Your task to perform on an android device: install app "Pandora - Music & Podcasts" Image 0: 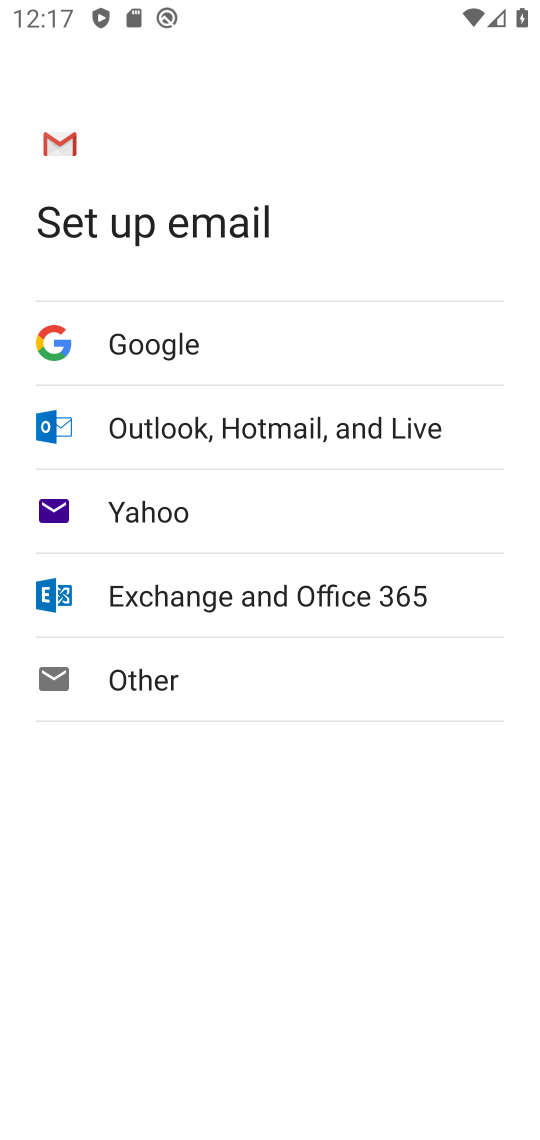
Step 0: press back button
Your task to perform on an android device: install app "Pandora - Music & Podcasts" Image 1: 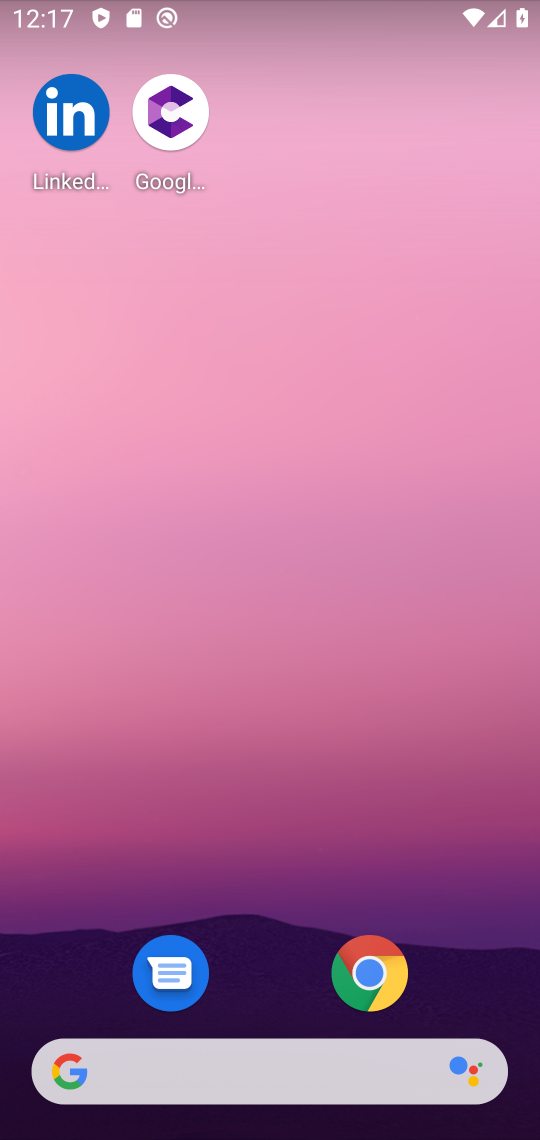
Step 1: drag from (274, 972) to (394, 155)
Your task to perform on an android device: install app "Pandora - Music & Podcasts" Image 2: 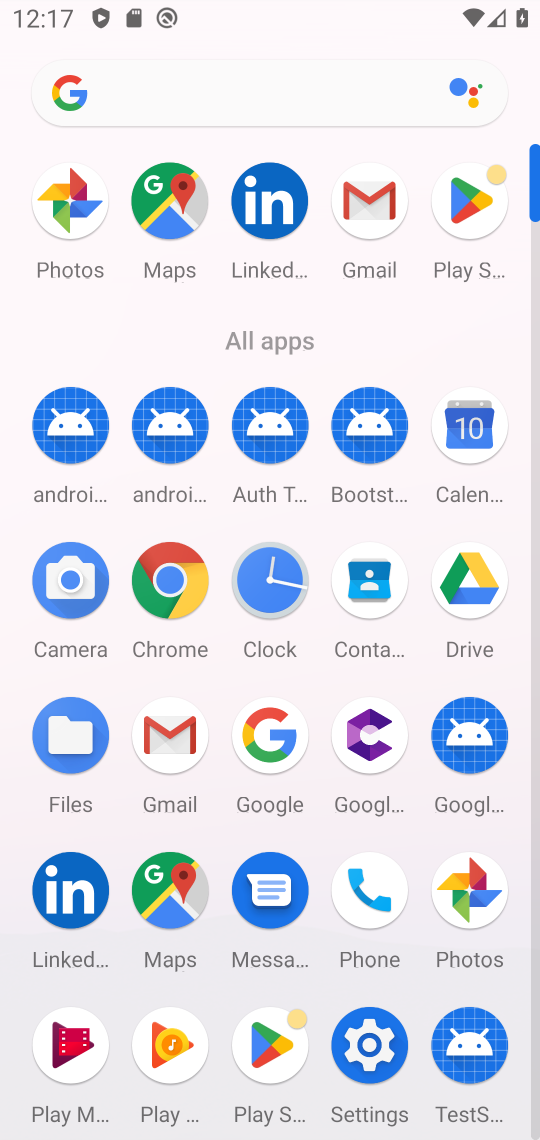
Step 2: click (472, 204)
Your task to perform on an android device: install app "Pandora - Music & Podcasts" Image 3: 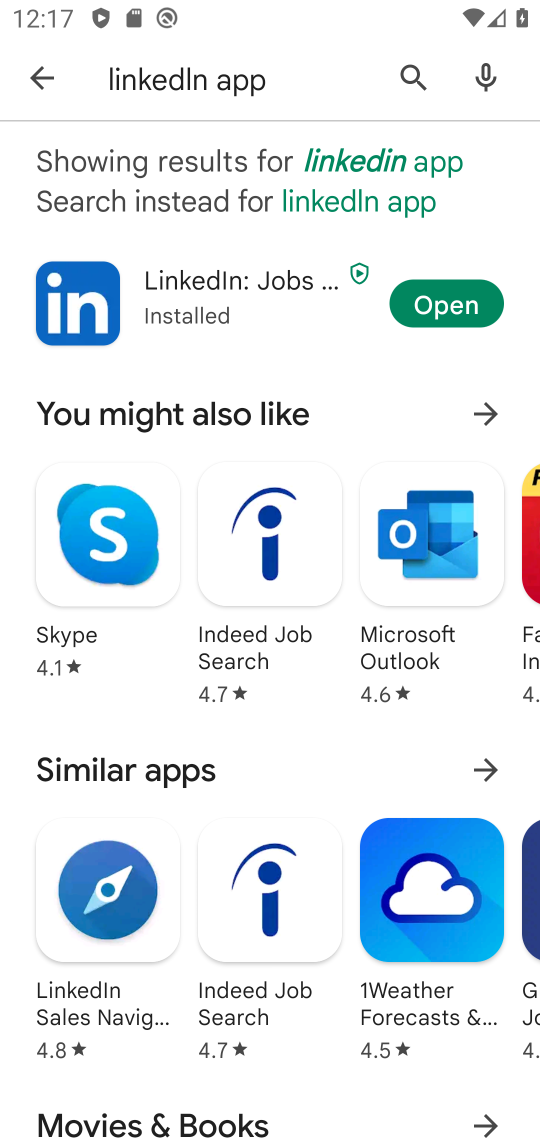
Step 3: click (406, 74)
Your task to perform on an android device: install app "Pandora - Music & Podcasts" Image 4: 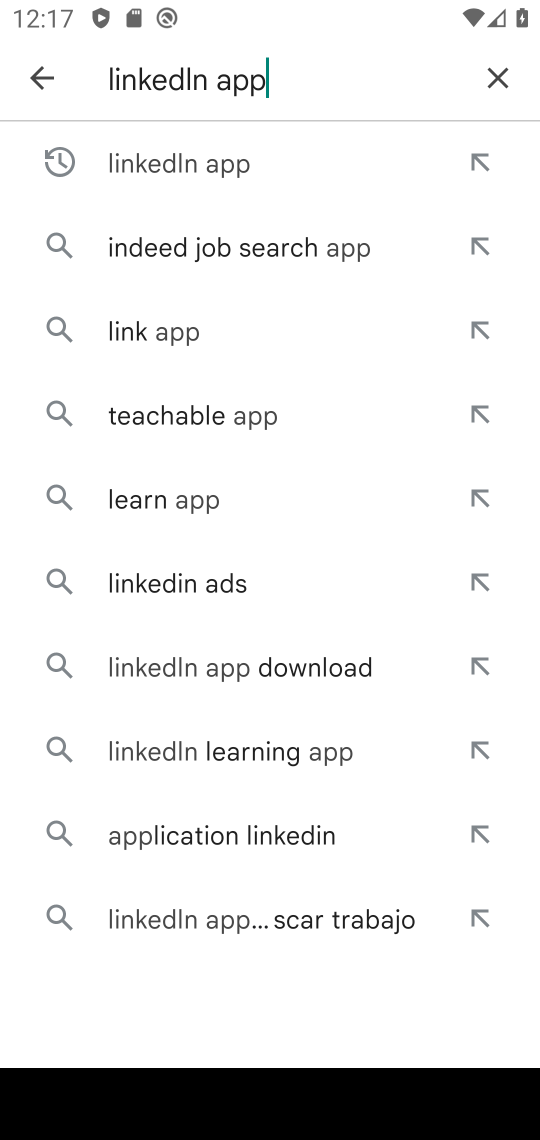
Step 4: click (502, 96)
Your task to perform on an android device: install app "Pandora - Music & Podcasts" Image 5: 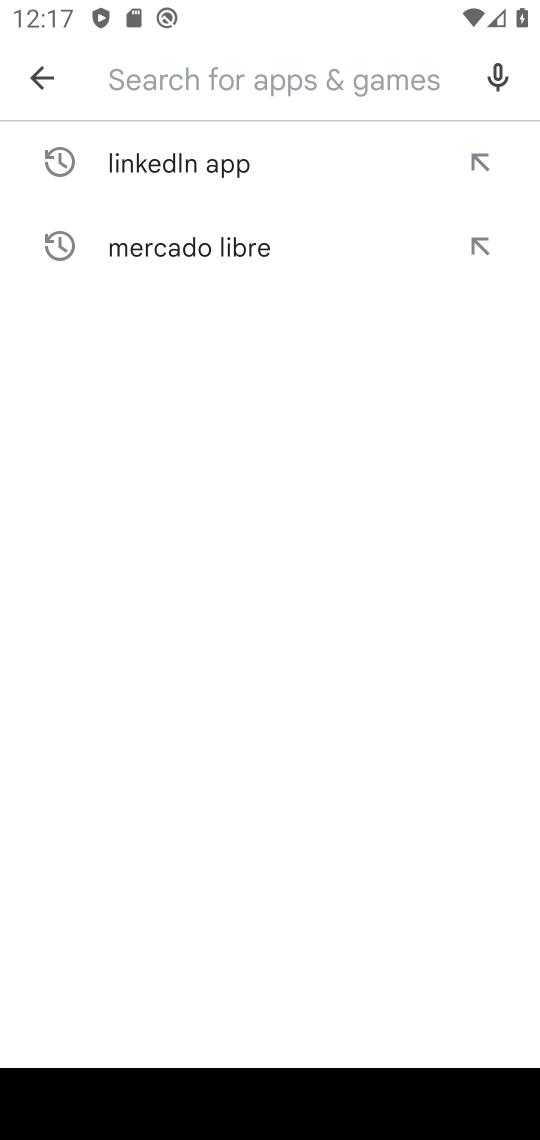
Step 5: click (244, 86)
Your task to perform on an android device: install app "Pandora - Music & Podcasts" Image 6: 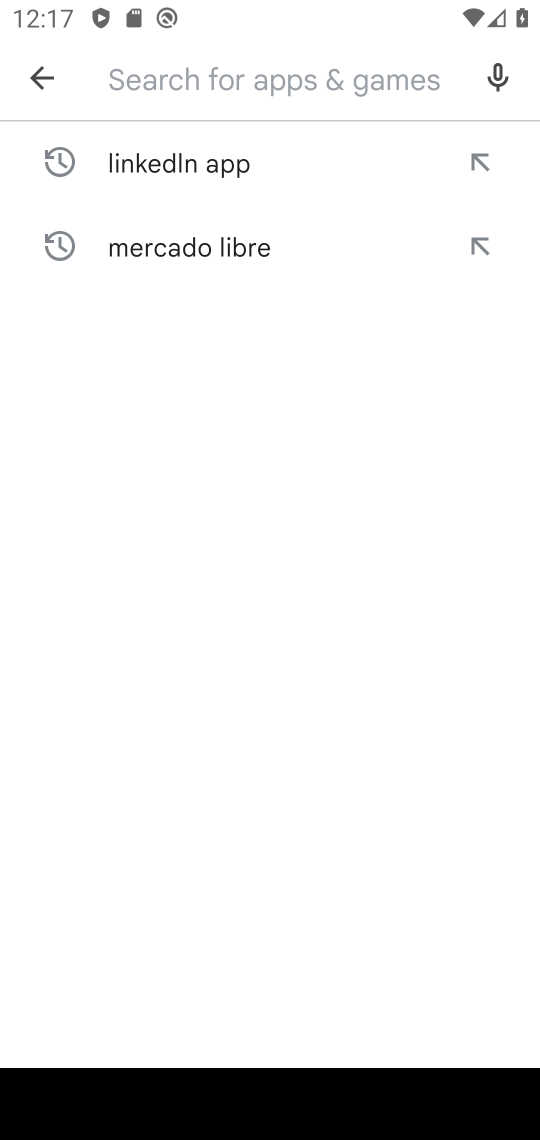
Step 6: click (192, 76)
Your task to perform on an android device: install app "Pandora - Music & Podcasts" Image 7: 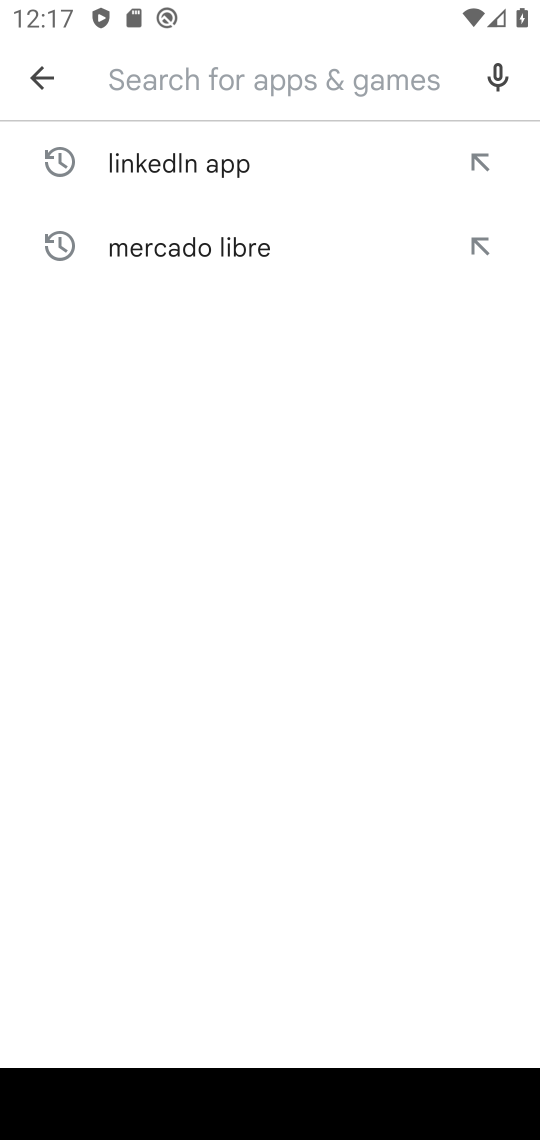
Step 7: click (210, 94)
Your task to perform on an android device: install app "Pandora - Music & Podcasts" Image 8: 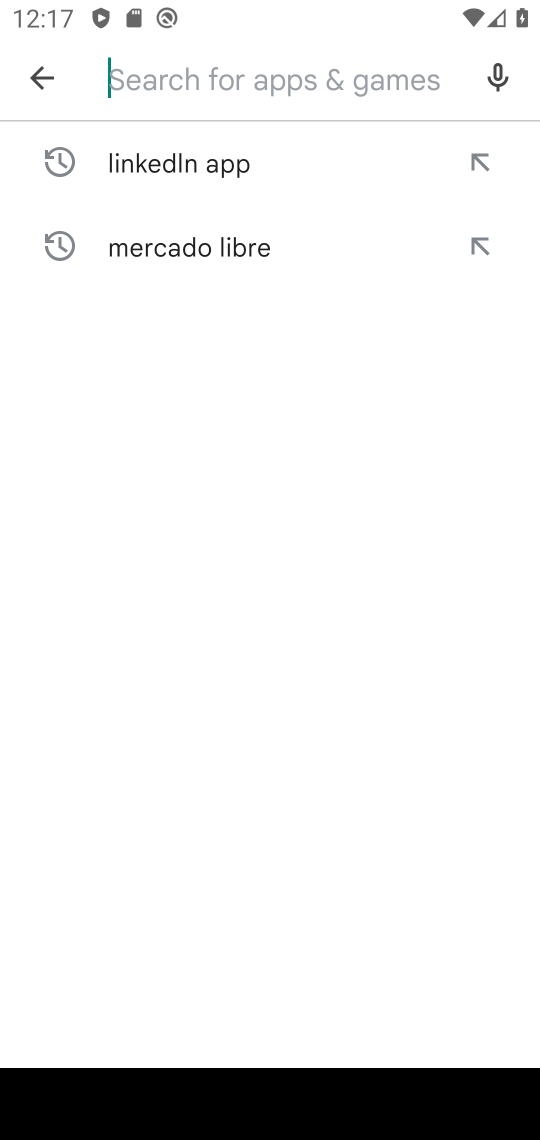
Step 8: type "pandora"
Your task to perform on an android device: install app "Pandora - Music & Podcasts" Image 9: 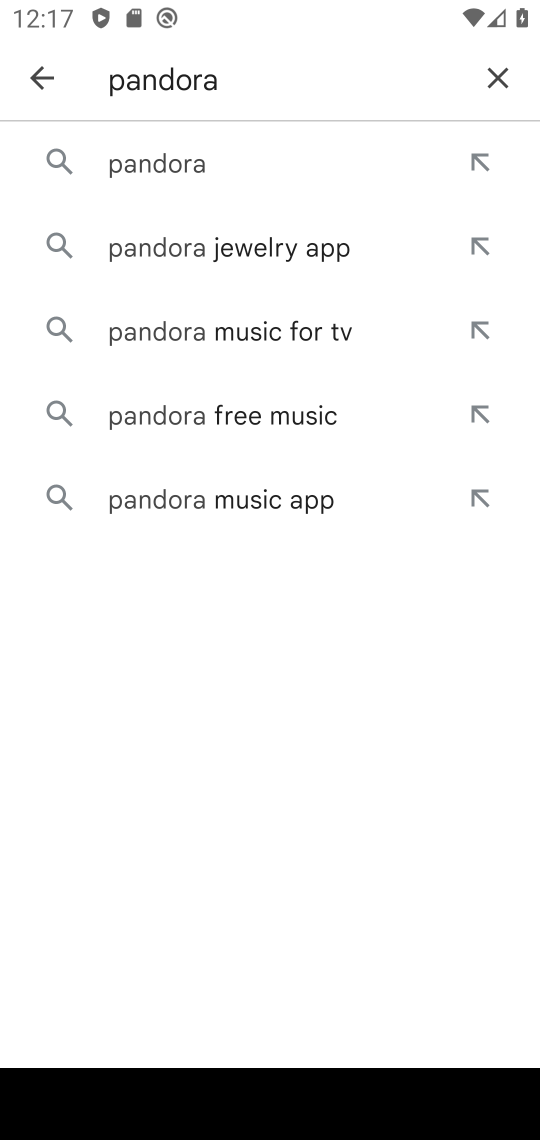
Step 9: click (161, 153)
Your task to perform on an android device: install app "Pandora - Music & Podcasts" Image 10: 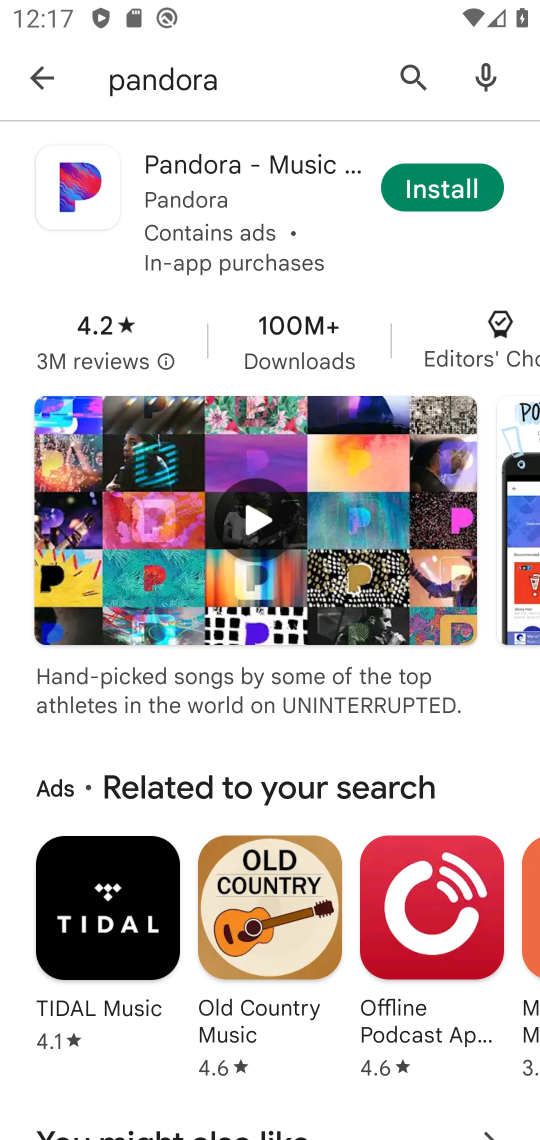
Step 10: click (417, 186)
Your task to perform on an android device: install app "Pandora - Music & Podcasts" Image 11: 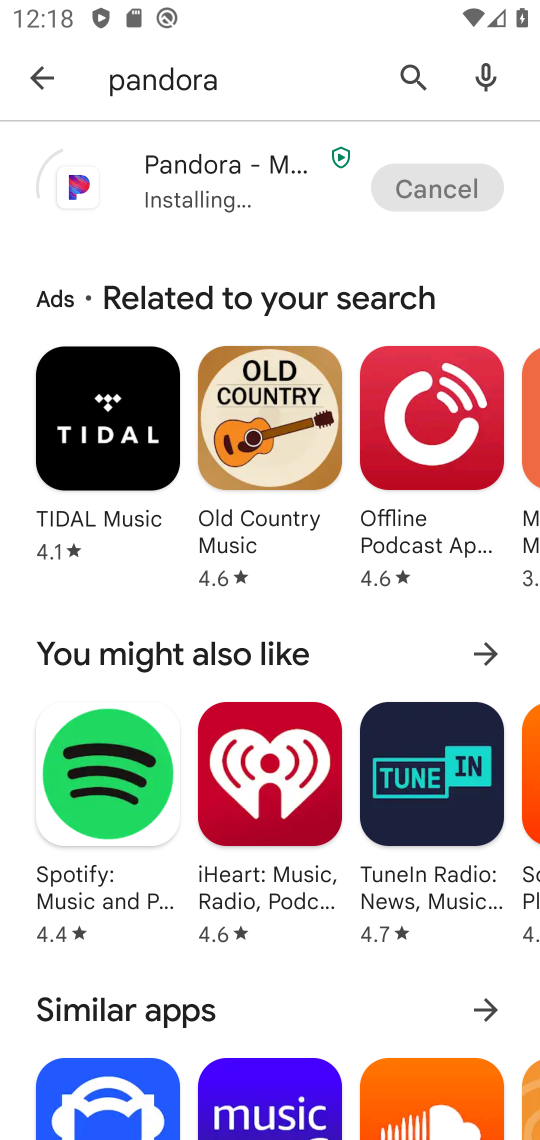
Step 11: press back button
Your task to perform on an android device: install app "Pandora - Music & Podcasts" Image 12: 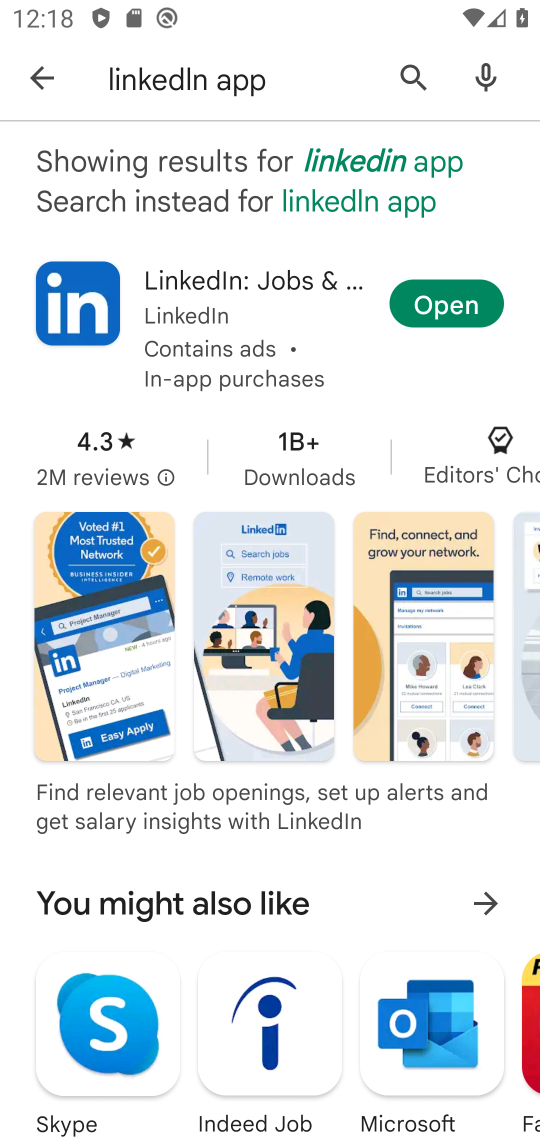
Step 12: click (403, 118)
Your task to perform on an android device: install app "Pandora - Music & Podcasts" Image 13: 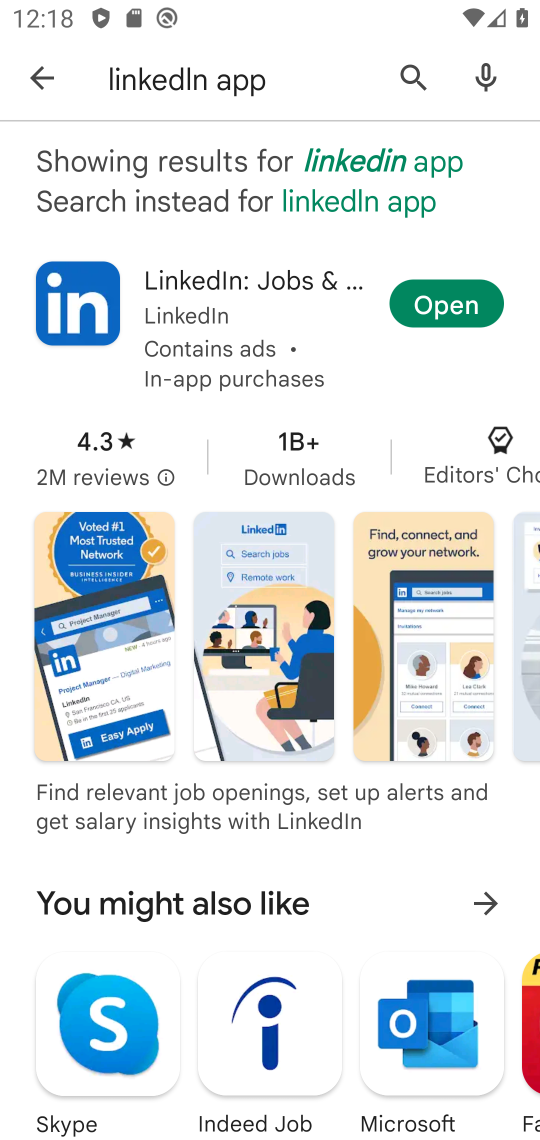
Step 13: click (417, 80)
Your task to perform on an android device: install app "Pandora - Music & Podcasts" Image 14: 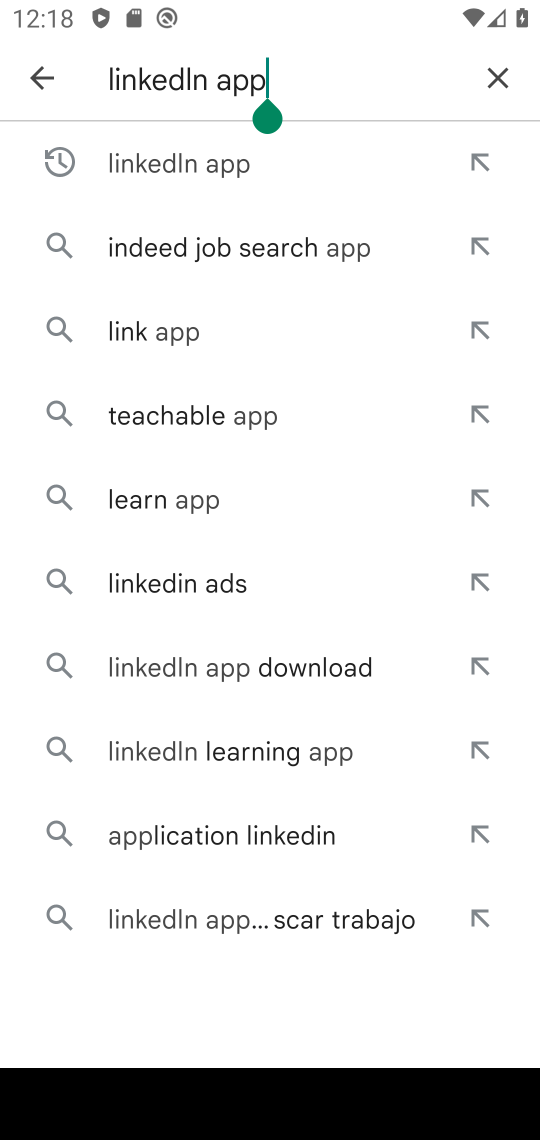
Step 14: click (504, 61)
Your task to perform on an android device: install app "Pandora - Music & Podcasts" Image 15: 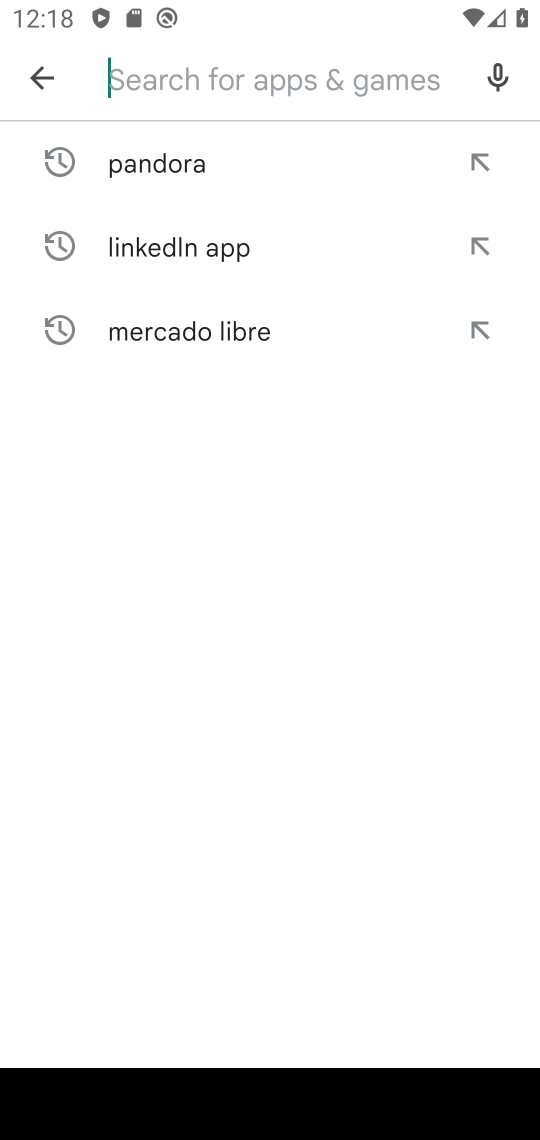
Step 15: click (161, 179)
Your task to perform on an android device: install app "Pandora - Music & Podcasts" Image 16: 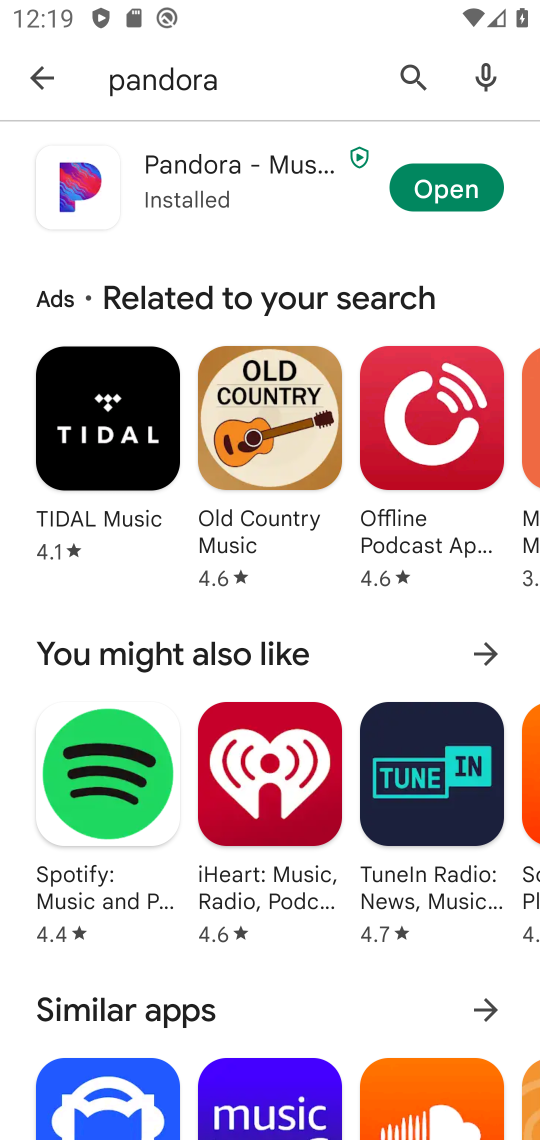
Step 16: click (480, 193)
Your task to perform on an android device: install app "Pandora - Music & Podcasts" Image 17: 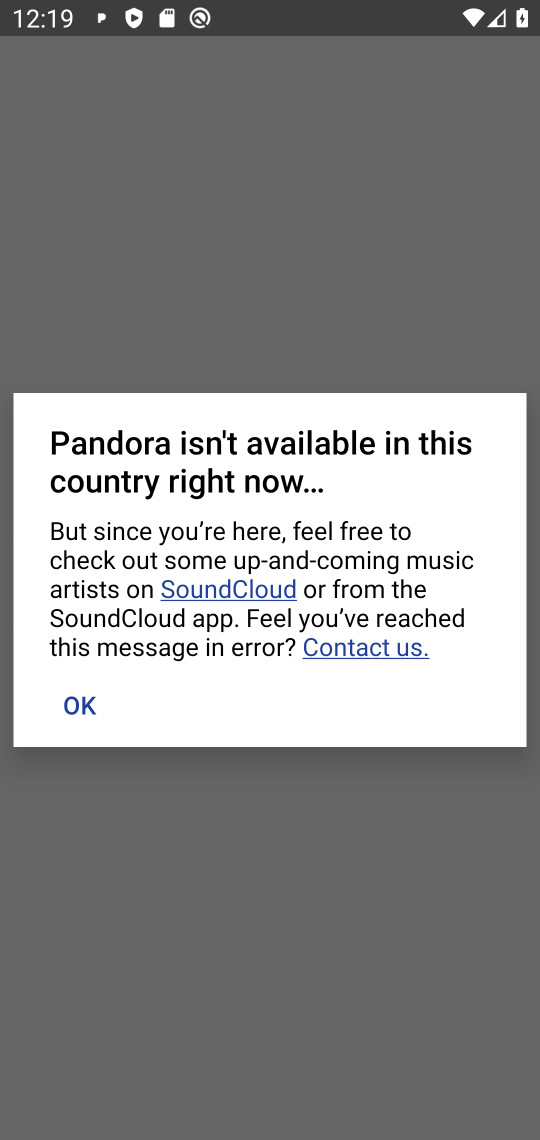
Step 17: click (106, 721)
Your task to perform on an android device: install app "Pandora - Music & Podcasts" Image 18: 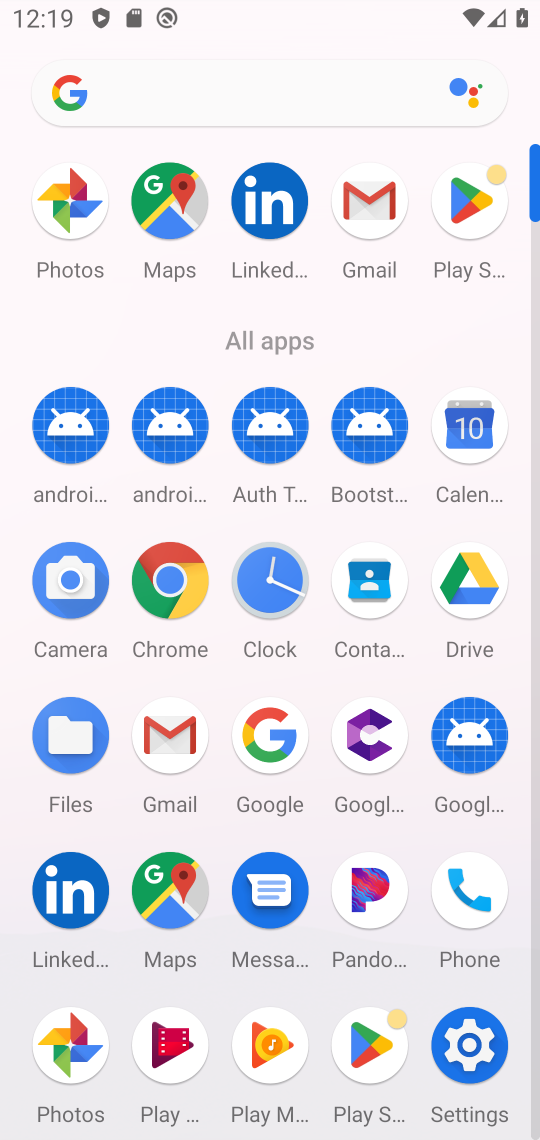
Step 18: click (470, 175)
Your task to perform on an android device: install app "Pandora - Music & Podcasts" Image 19: 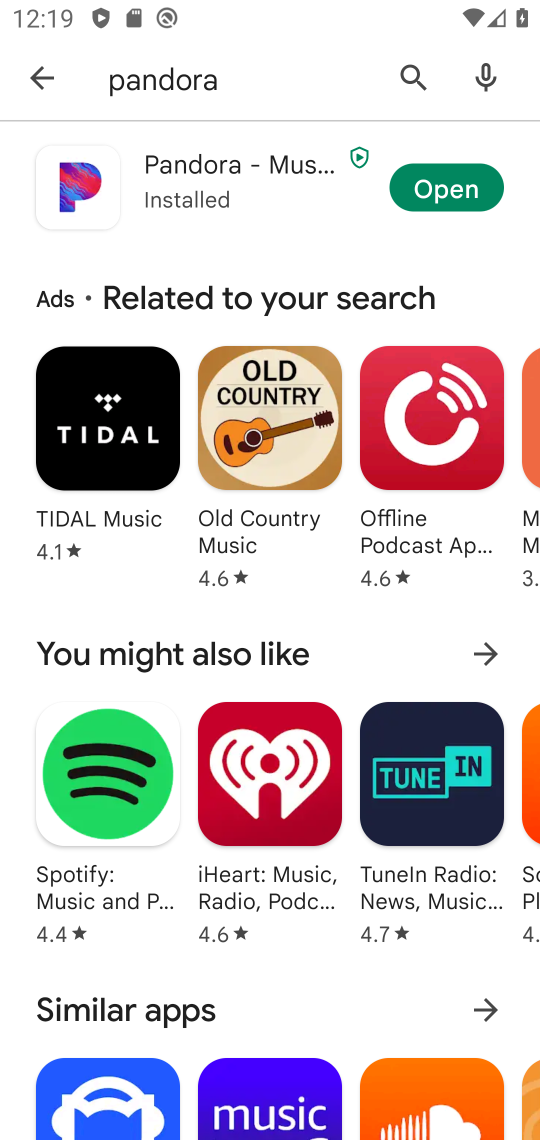
Step 19: task complete